Your task to perform on an android device: How do I get to the nearest Target? Image 0: 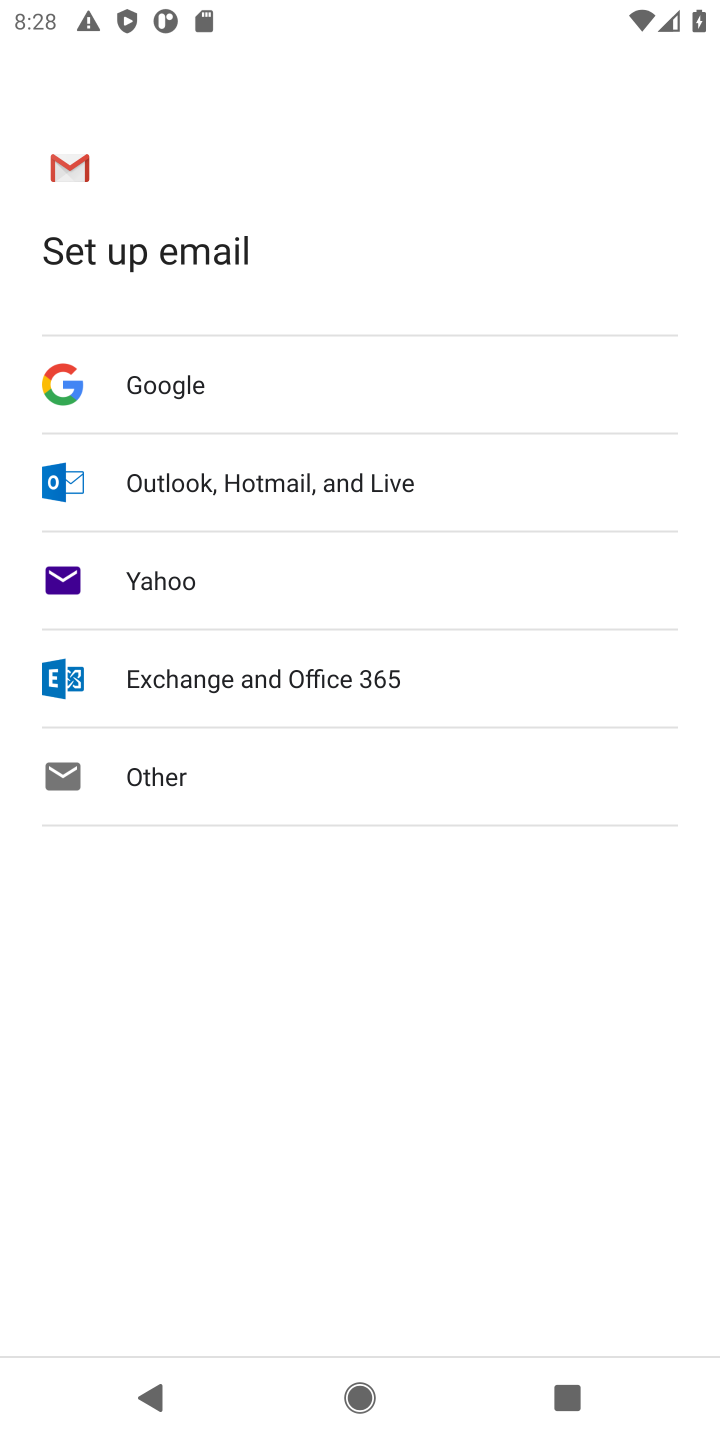
Step 0: press home button
Your task to perform on an android device: How do I get to the nearest Target? Image 1: 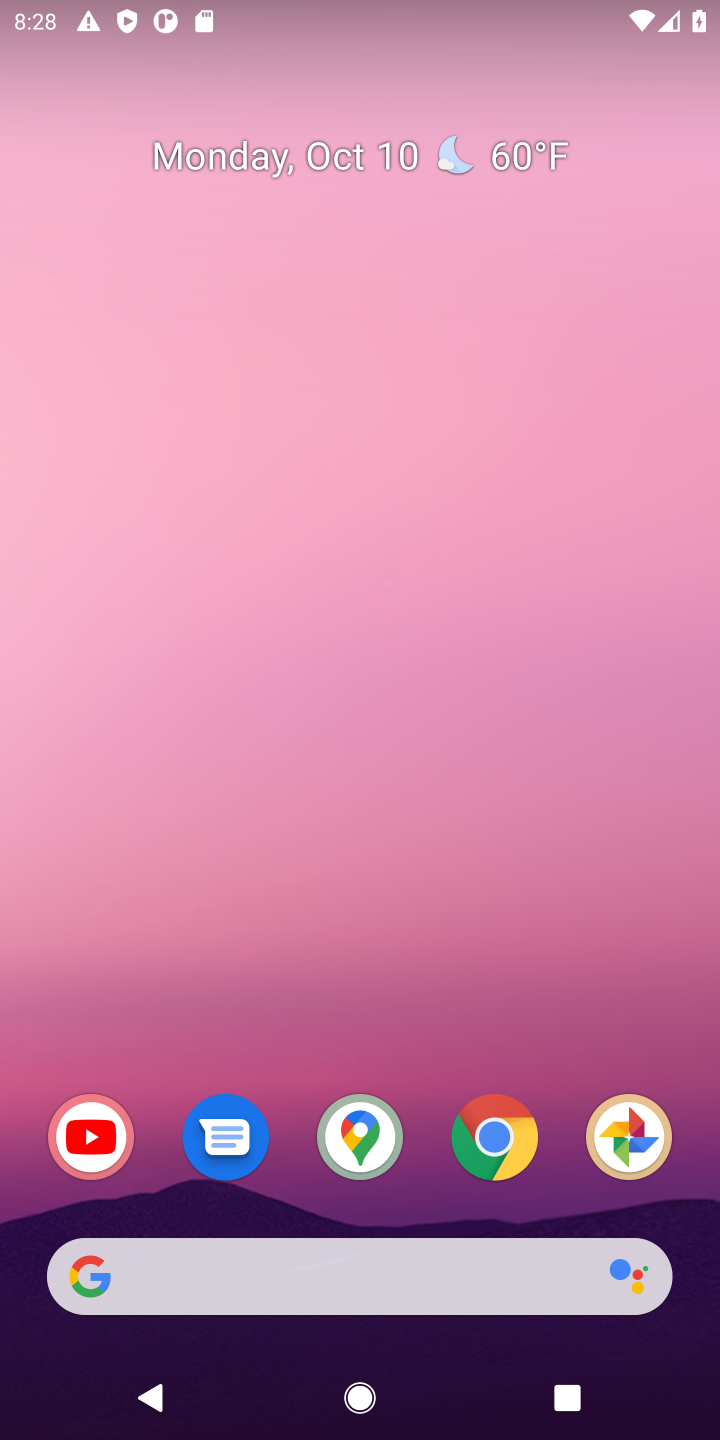
Step 1: click (489, 1134)
Your task to perform on an android device: How do I get to the nearest Target? Image 2: 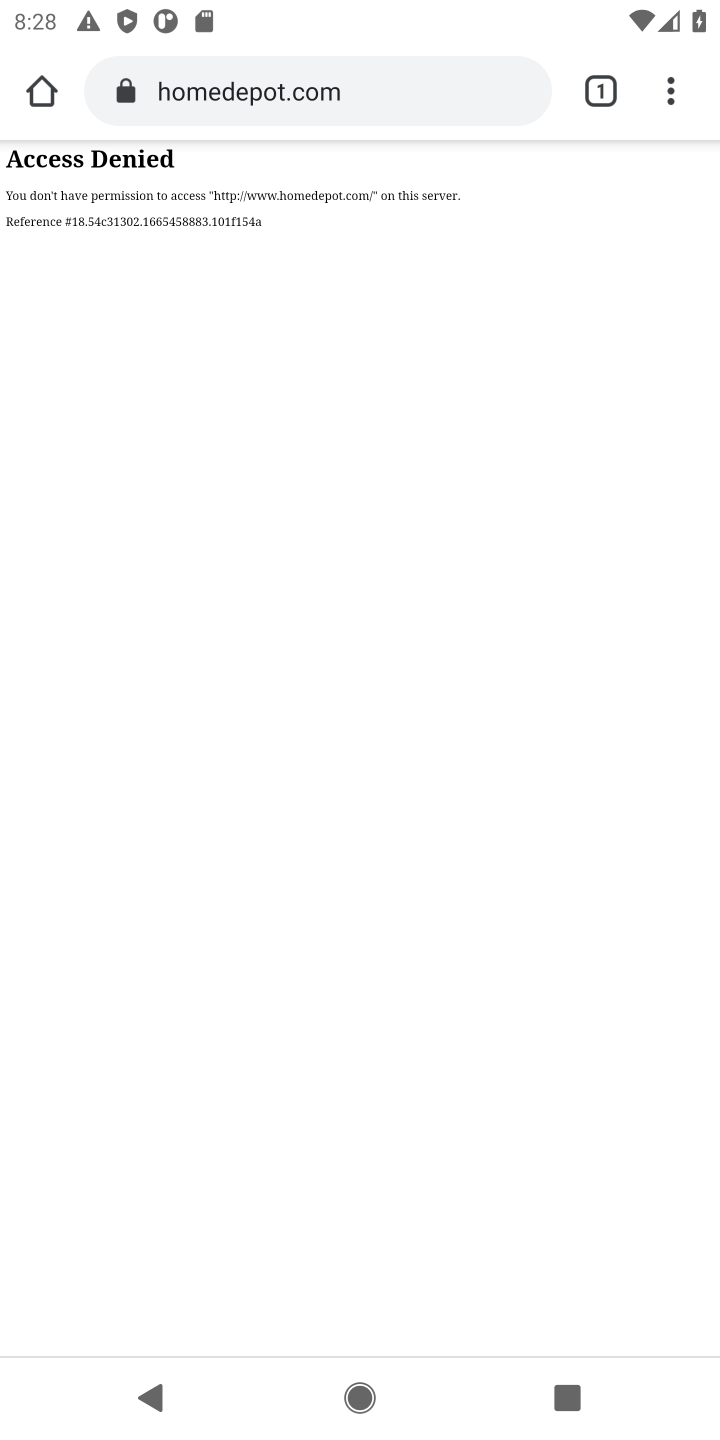
Step 2: click (355, 64)
Your task to perform on an android device: How do I get to the nearest Target? Image 3: 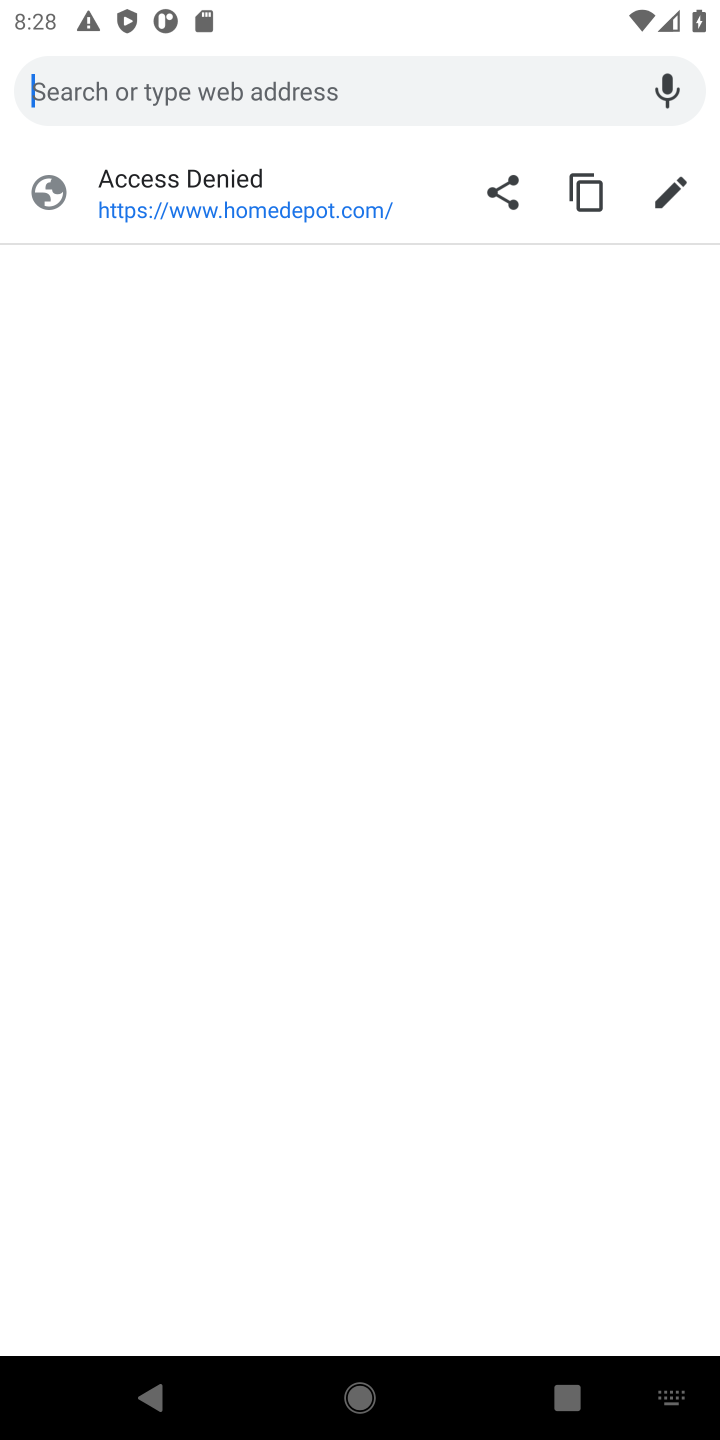
Step 3: type "nearest target"
Your task to perform on an android device: How do I get to the nearest Target? Image 4: 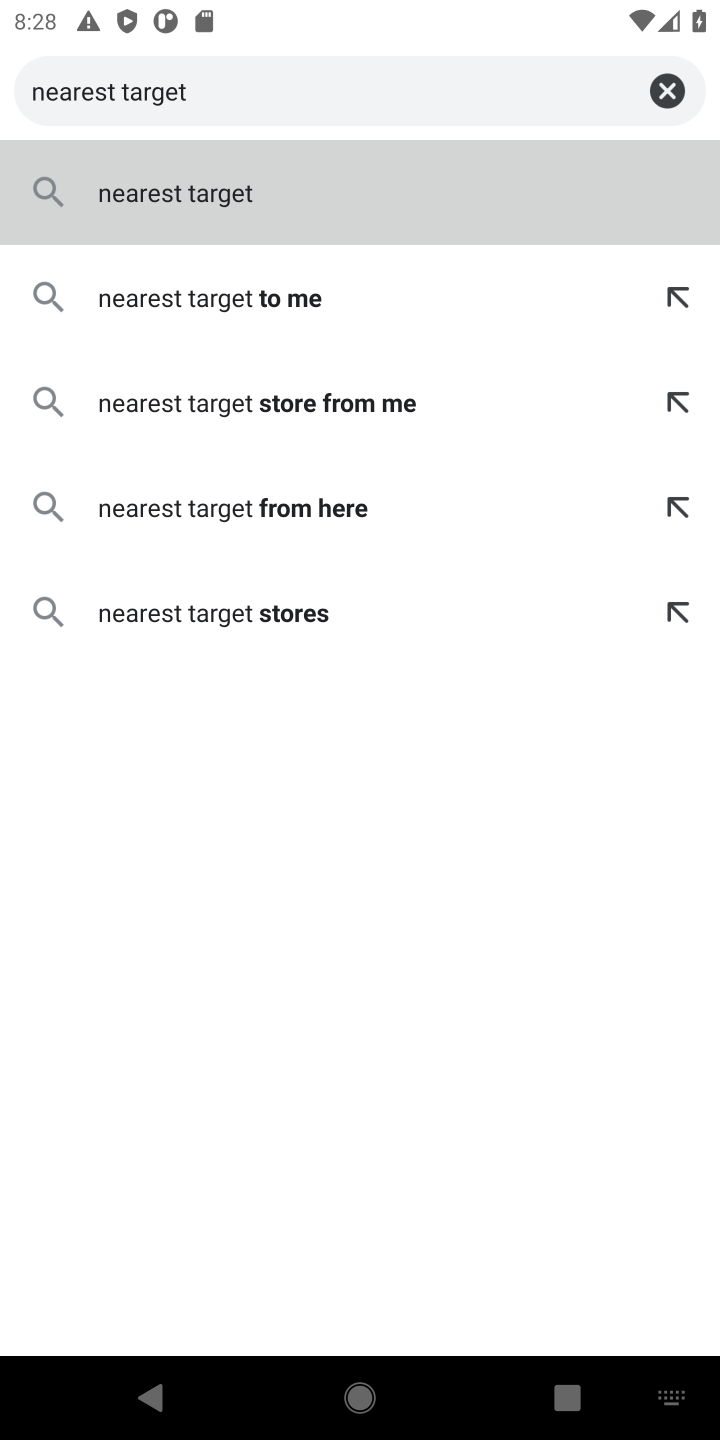
Step 4: click (113, 193)
Your task to perform on an android device: How do I get to the nearest Target? Image 5: 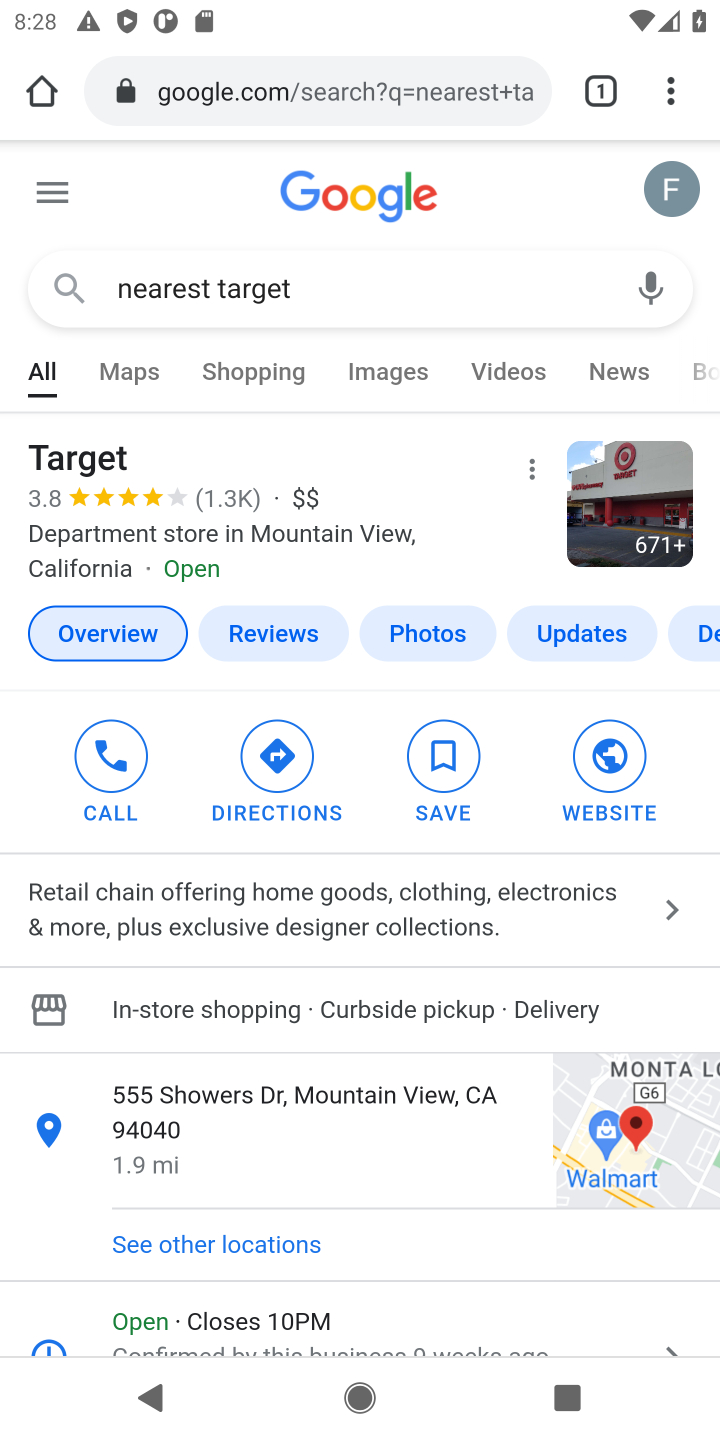
Step 5: click (74, 458)
Your task to perform on an android device: How do I get to the nearest Target? Image 6: 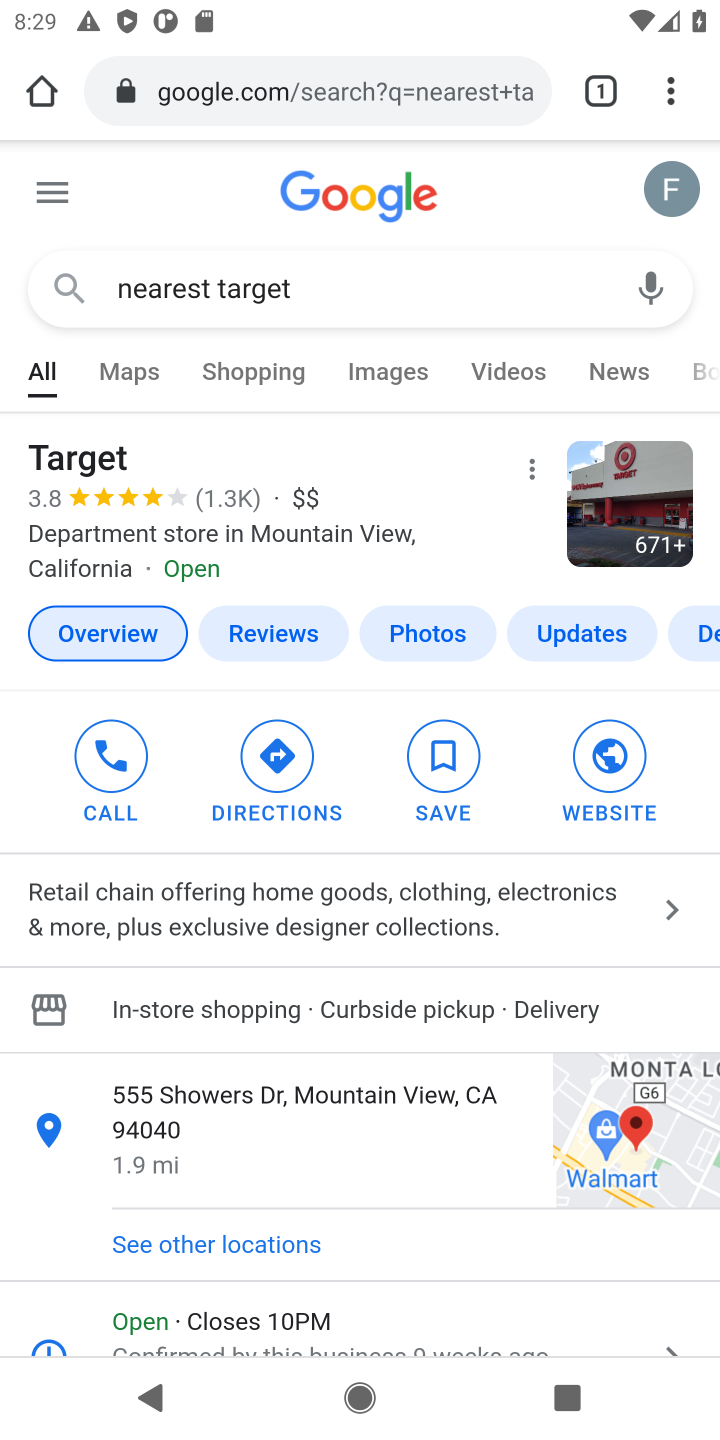
Step 6: task complete